Your task to perform on an android device: Go to Reddit.com Image 0: 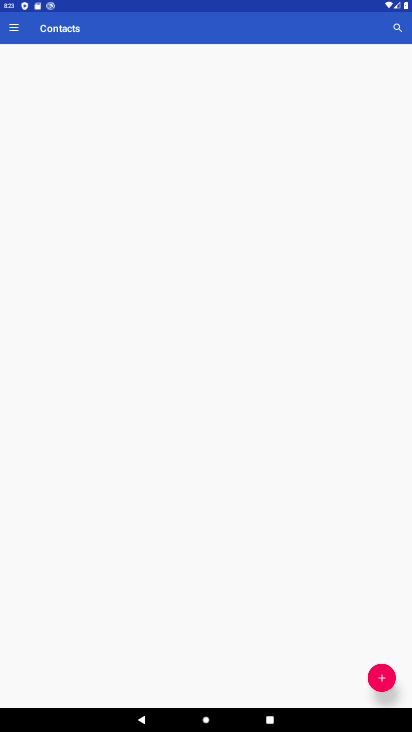
Step 0: press home button
Your task to perform on an android device: Go to Reddit.com Image 1: 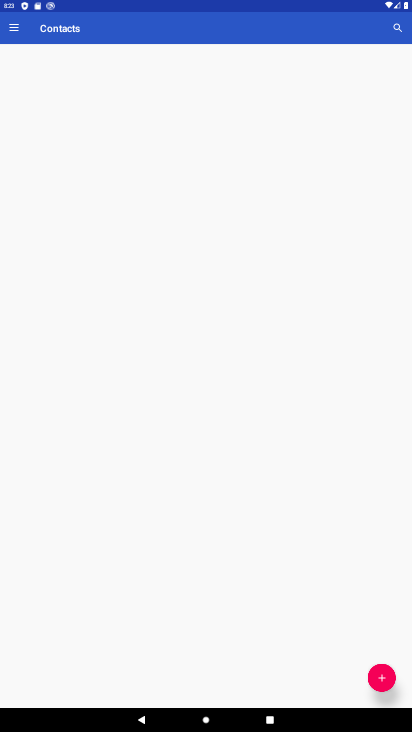
Step 1: press home button
Your task to perform on an android device: Go to Reddit.com Image 2: 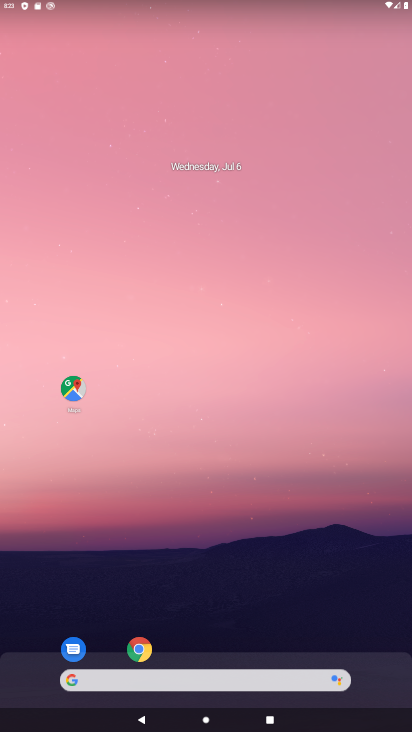
Step 2: drag from (218, 575) to (229, 62)
Your task to perform on an android device: Go to Reddit.com Image 3: 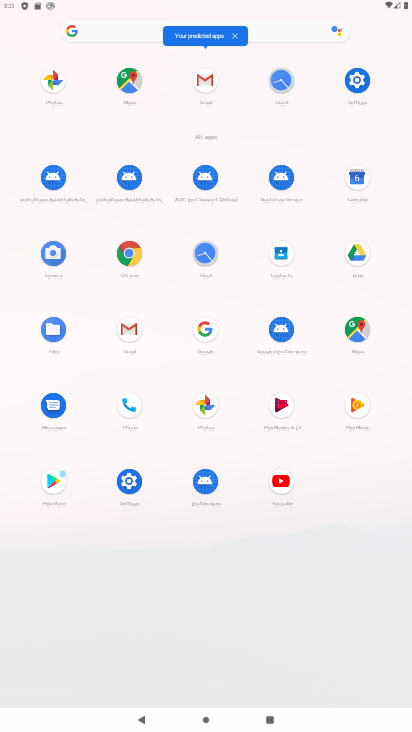
Step 3: click (129, 250)
Your task to perform on an android device: Go to Reddit.com Image 4: 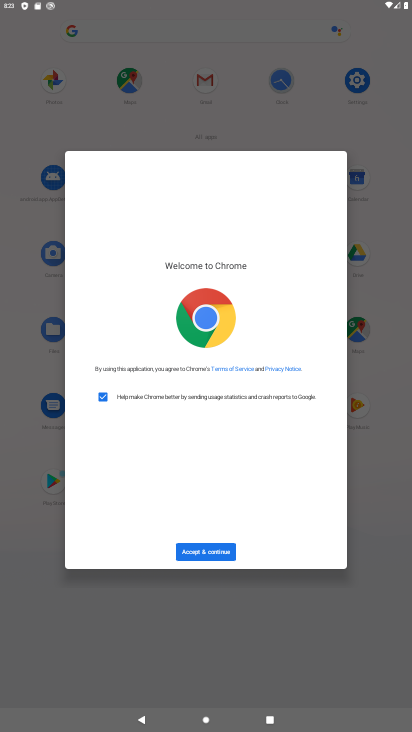
Step 4: click (200, 548)
Your task to perform on an android device: Go to Reddit.com Image 5: 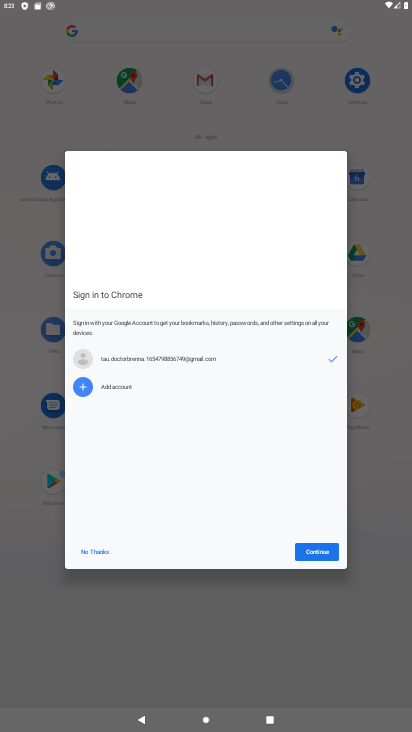
Step 5: click (318, 550)
Your task to perform on an android device: Go to Reddit.com Image 6: 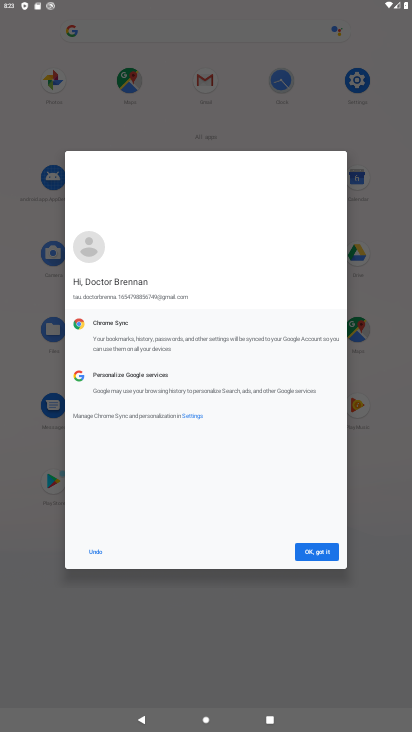
Step 6: click (318, 550)
Your task to perform on an android device: Go to Reddit.com Image 7: 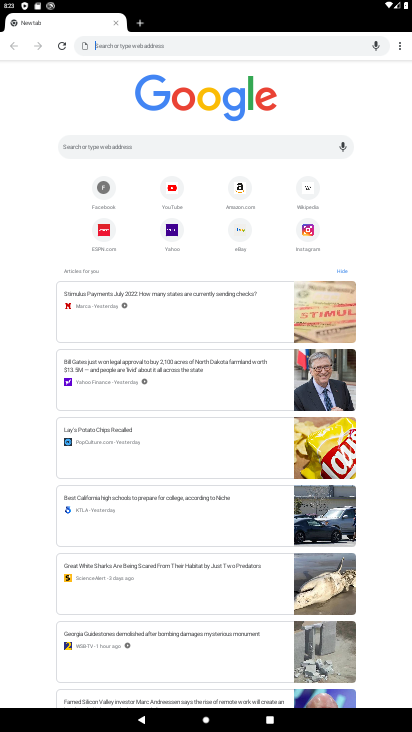
Step 7: click (138, 140)
Your task to perform on an android device: Go to Reddit.com Image 8: 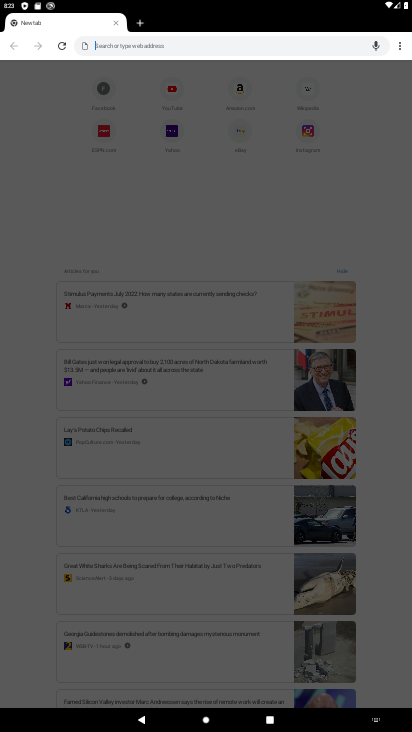
Step 8: type "reddit.com"
Your task to perform on an android device: Go to Reddit.com Image 9: 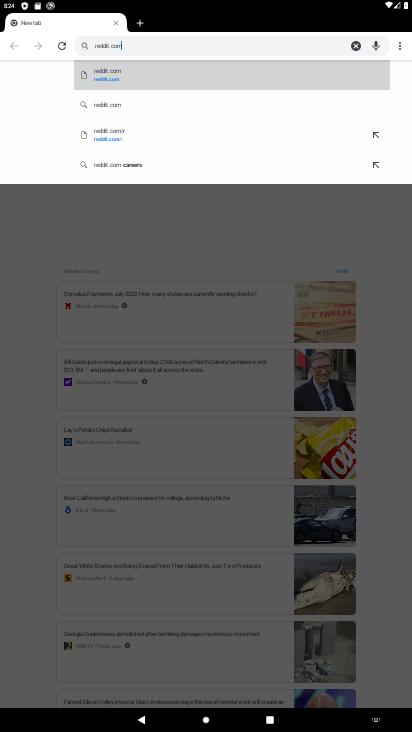
Step 9: type ""
Your task to perform on an android device: Go to Reddit.com Image 10: 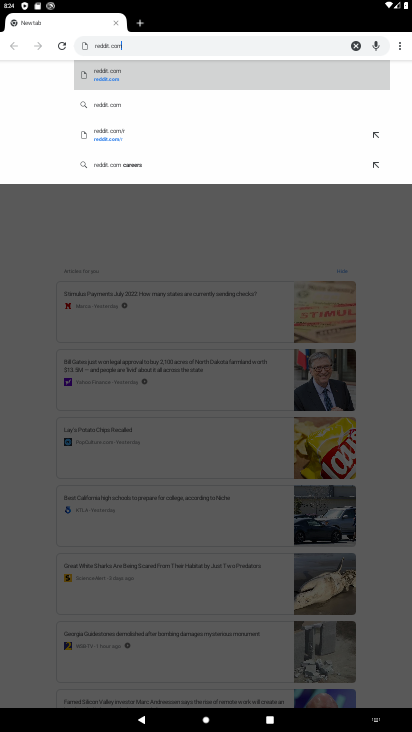
Step 10: click (131, 76)
Your task to perform on an android device: Go to Reddit.com Image 11: 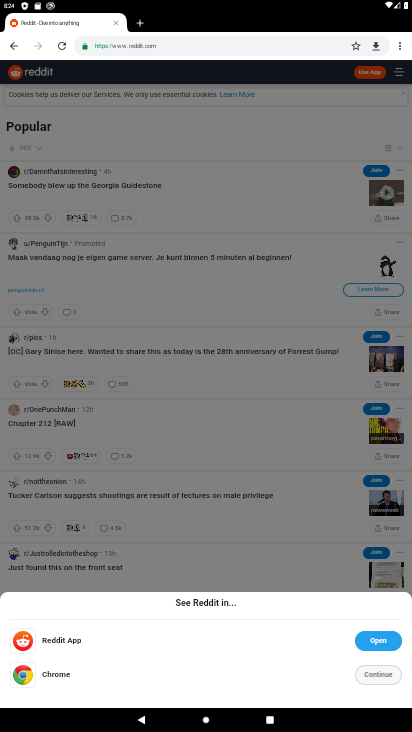
Step 11: click (374, 675)
Your task to perform on an android device: Go to Reddit.com Image 12: 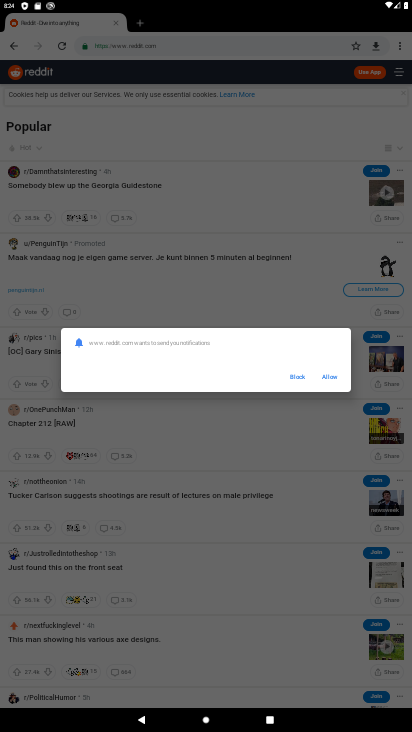
Step 12: click (330, 379)
Your task to perform on an android device: Go to Reddit.com Image 13: 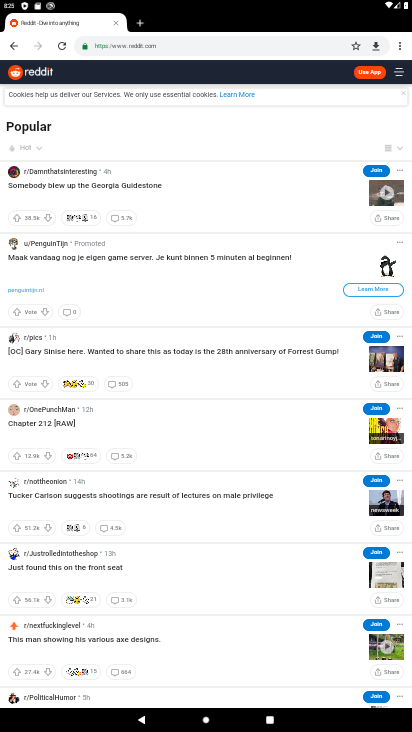
Step 13: task complete